Your task to perform on an android device: set the stopwatch Image 0: 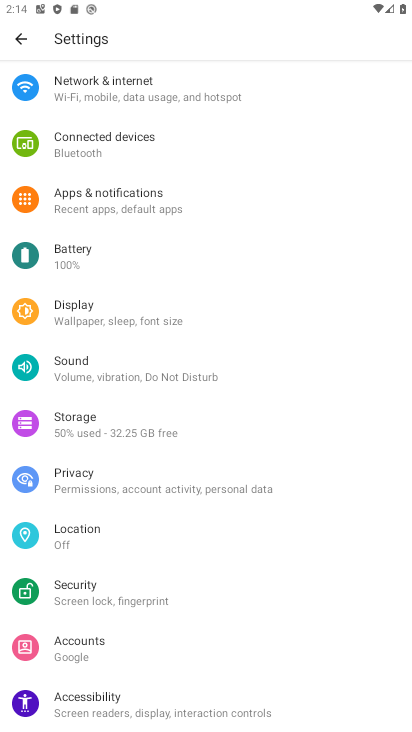
Step 0: press home button
Your task to perform on an android device: set the stopwatch Image 1: 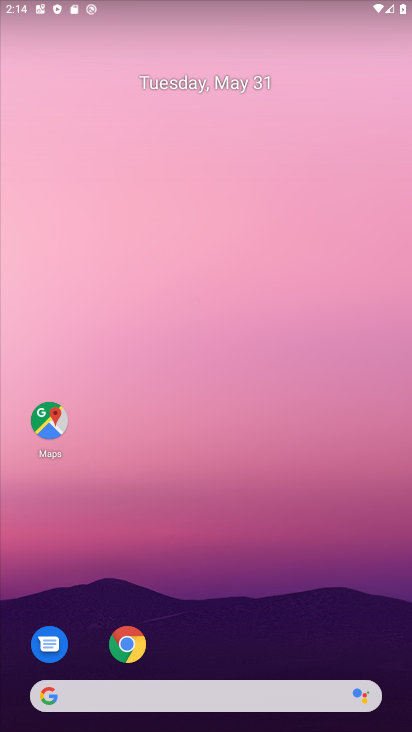
Step 1: drag from (403, 718) to (354, 209)
Your task to perform on an android device: set the stopwatch Image 2: 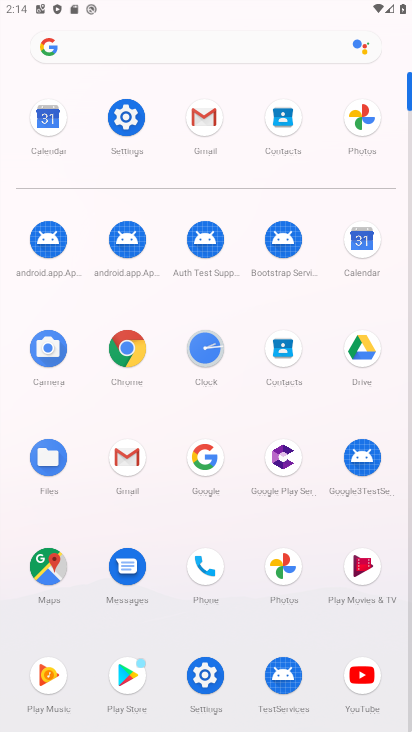
Step 2: click (198, 355)
Your task to perform on an android device: set the stopwatch Image 3: 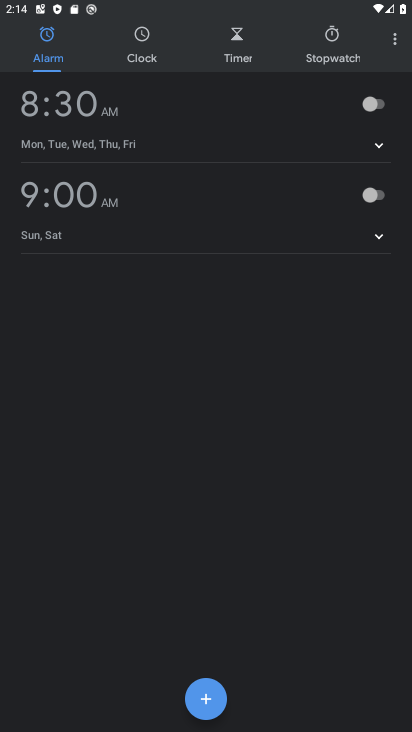
Step 3: click (327, 39)
Your task to perform on an android device: set the stopwatch Image 4: 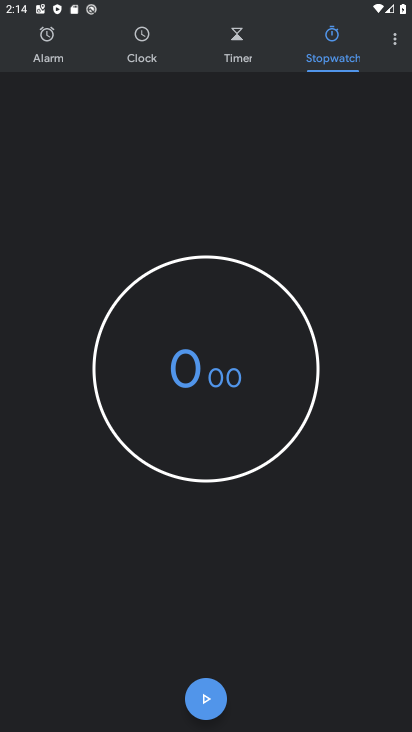
Step 4: click (216, 697)
Your task to perform on an android device: set the stopwatch Image 5: 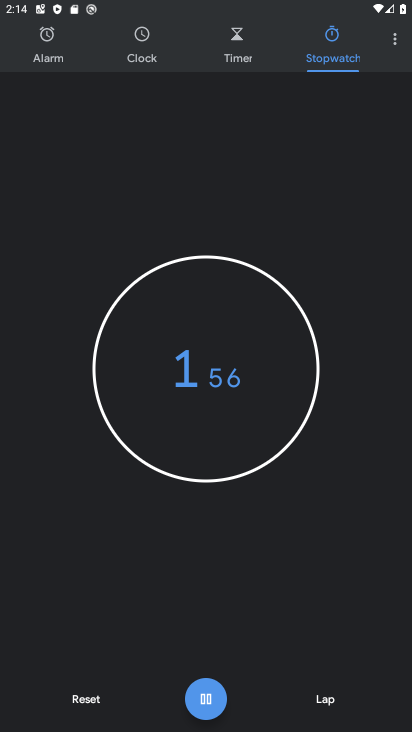
Step 5: task complete